Your task to perform on an android device: Search for pizza restaurants on Maps Image 0: 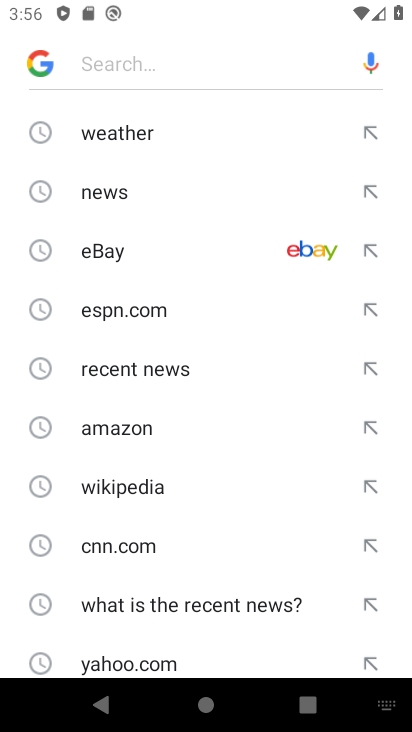
Step 0: press home button
Your task to perform on an android device: Search for pizza restaurants on Maps Image 1: 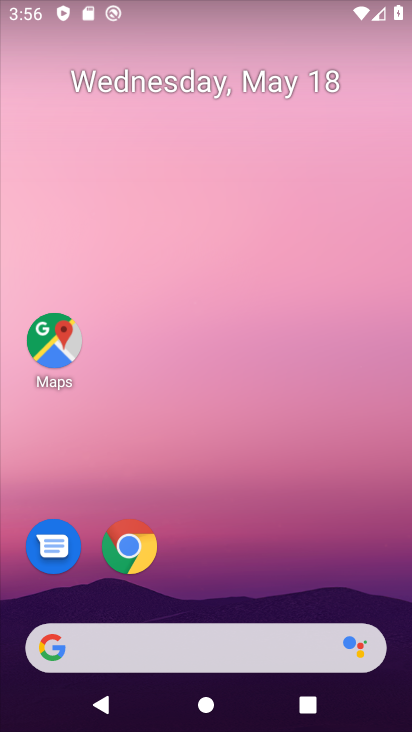
Step 1: click (46, 325)
Your task to perform on an android device: Search for pizza restaurants on Maps Image 2: 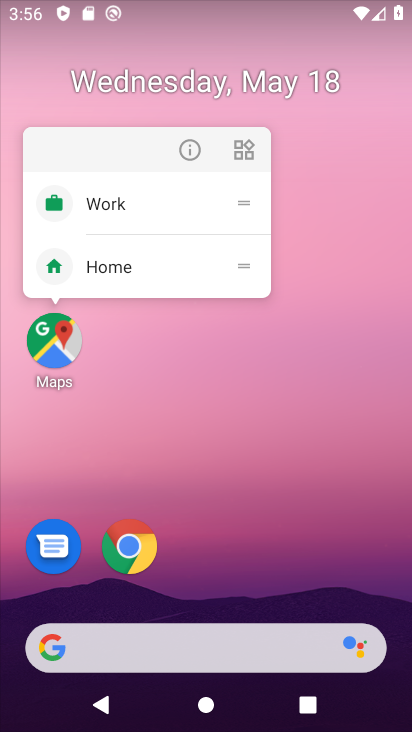
Step 2: click (39, 328)
Your task to perform on an android device: Search for pizza restaurants on Maps Image 3: 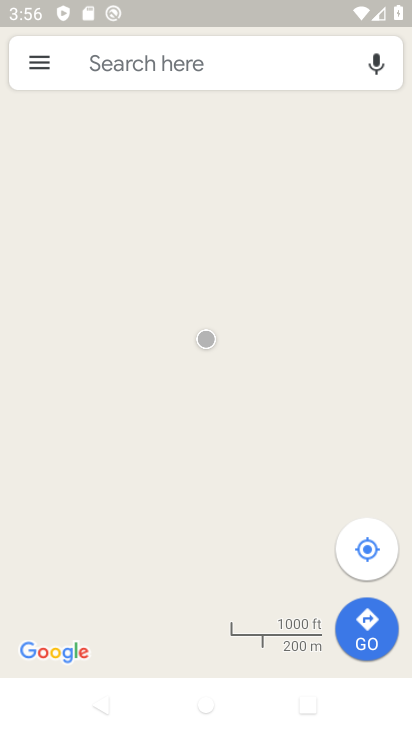
Step 3: click (190, 73)
Your task to perform on an android device: Search for pizza restaurants on Maps Image 4: 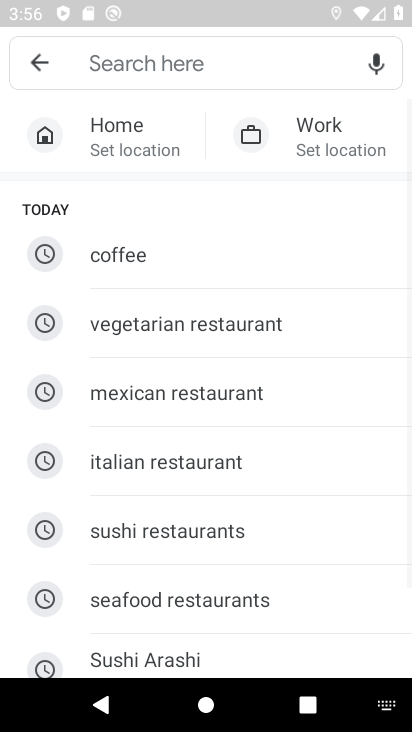
Step 4: type "Pizza restaurants"
Your task to perform on an android device: Search for pizza restaurants on Maps Image 5: 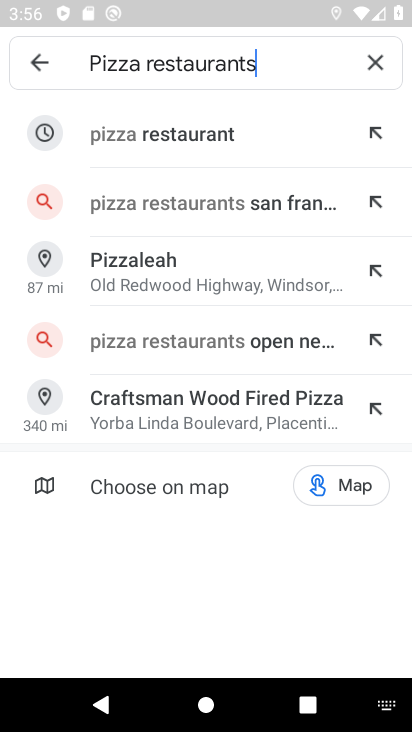
Step 5: click (153, 144)
Your task to perform on an android device: Search for pizza restaurants on Maps Image 6: 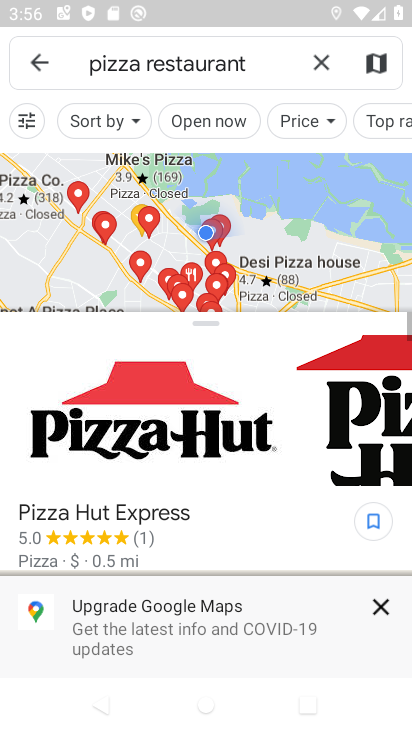
Step 6: task complete